Your task to perform on an android device: Open the stopwatch Image 0: 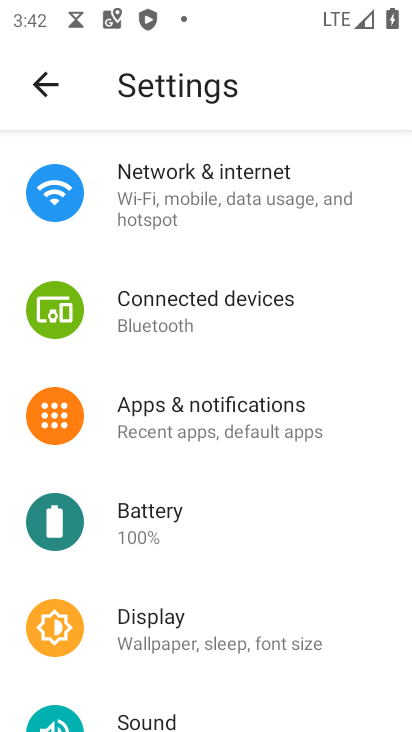
Step 0: press home button
Your task to perform on an android device: Open the stopwatch Image 1: 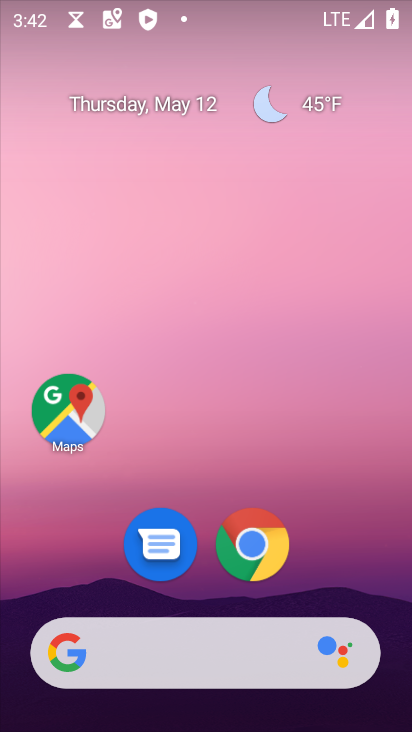
Step 1: drag from (351, 583) to (210, 79)
Your task to perform on an android device: Open the stopwatch Image 2: 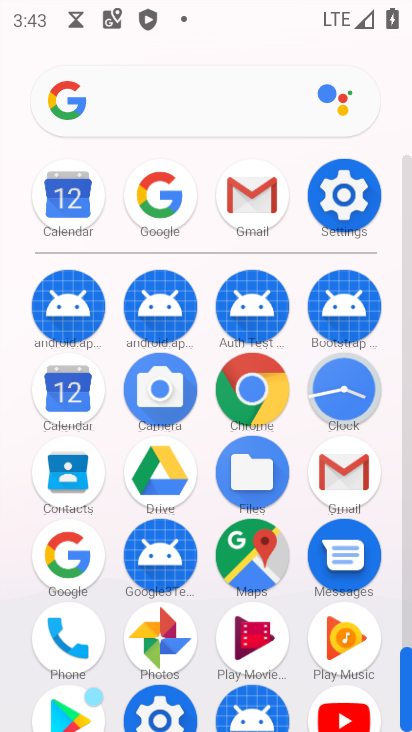
Step 2: click (343, 389)
Your task to perform on an android device: Open the stopwatch Image 3: 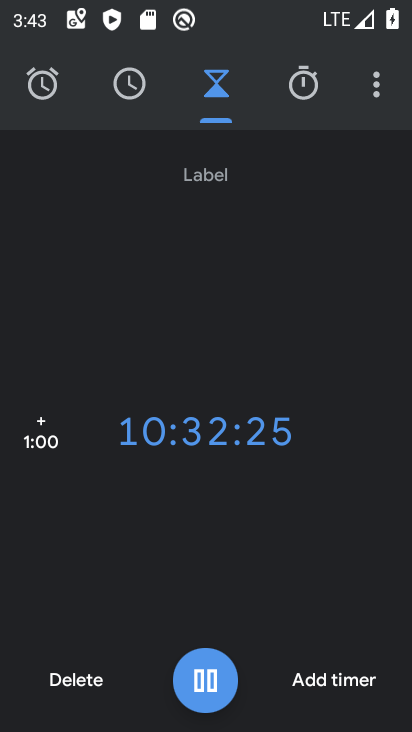
Step 3: click (321, 93)
Your task to perform on an android device: Open the stopwatch Image 4: 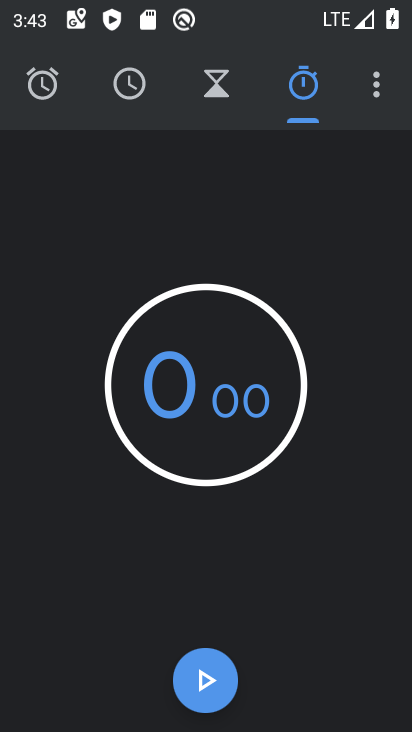
Step 4: task complete